Your task to perform on an android device: set the stopwatch Image 0: 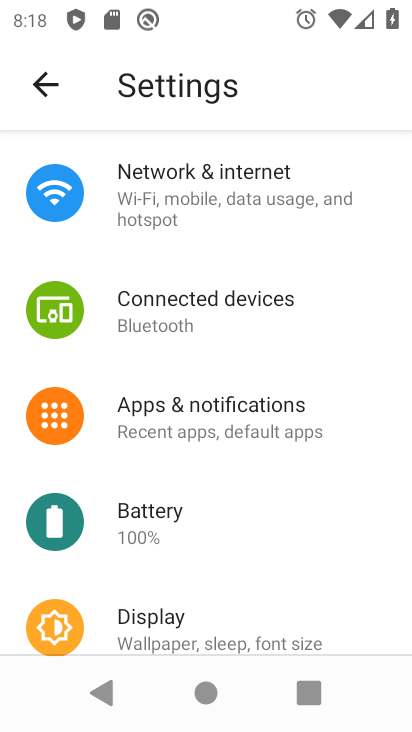
Step 0: click (200, 699)
Your task to perform on an android device: set the stopwatch Image 1: 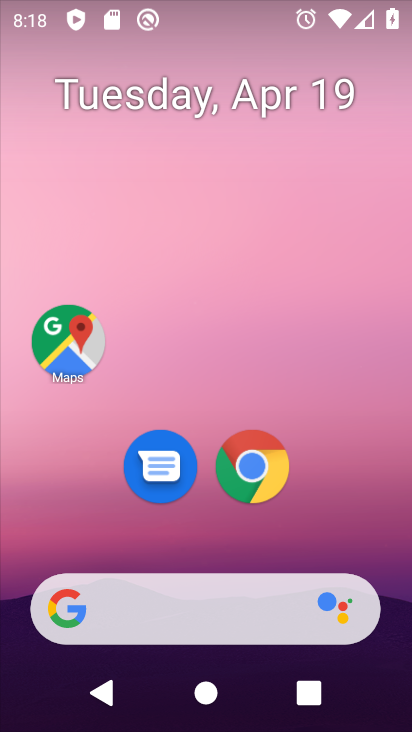
Step 1: drag from (300, 401) to (356, 5)
Your task to perform on an android device: set the stopwatch Image 2: 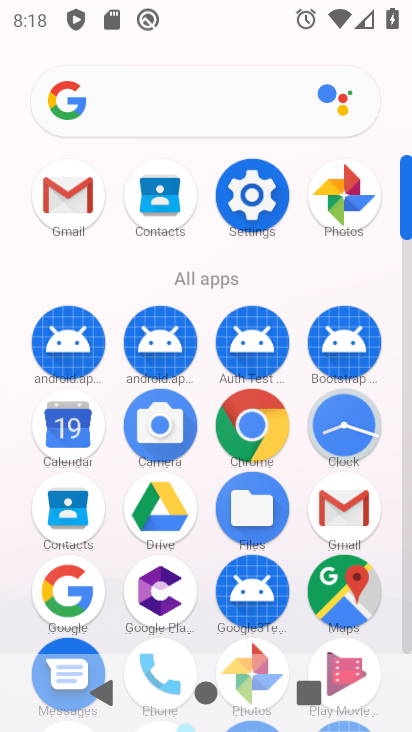
Step 2: click (356, 427)
Your task to perform on an android device: set the stopwatch Image 3: 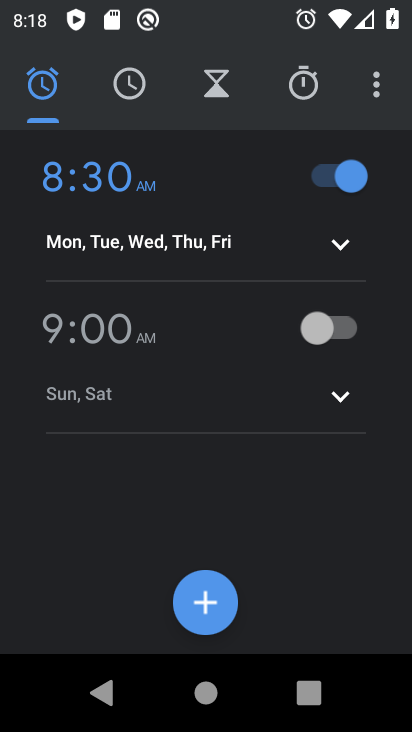
Step 3: click (320, 106)
Your task to perform on an android device: set the stopwatch Image 4: 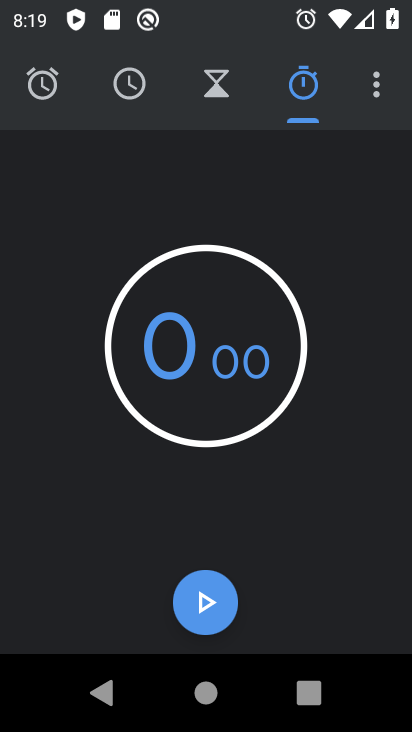
Step 4: click (221, 588)
Your task to perform on an android device: set the stopwatch Image 5: 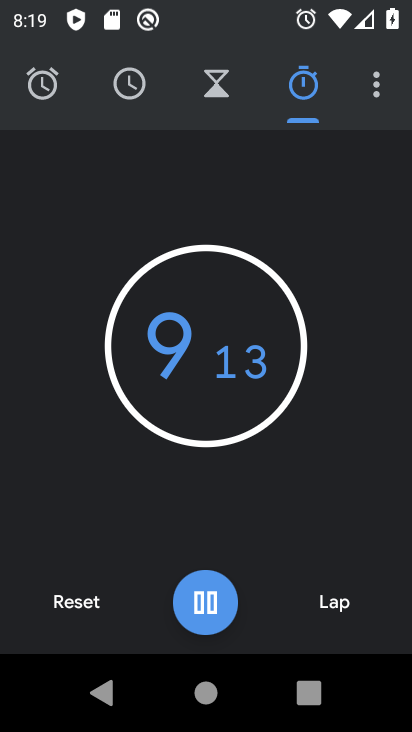
Step 5: task complete